Your task to perform on an android device: Open Reddit.com Image 0: 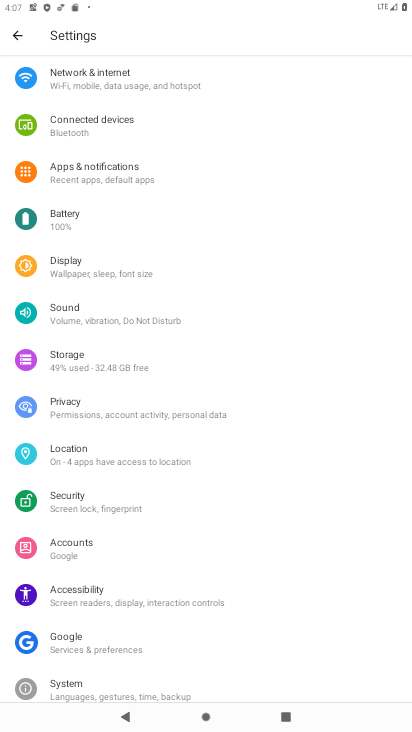
Step 0: press home button
Your task to perform on an android device: Open Reddit.com Image 1: 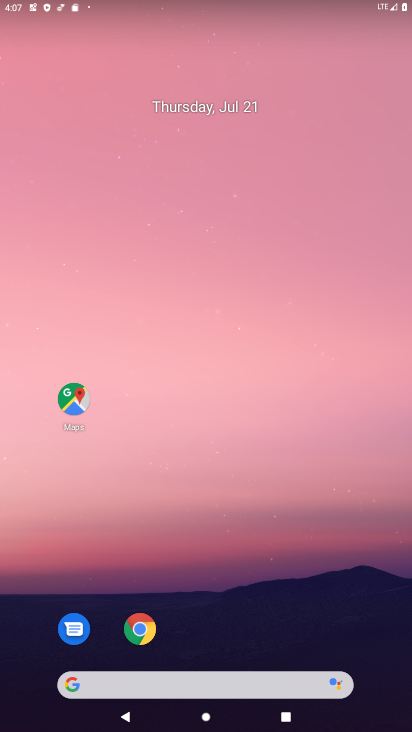
Step 1: drag from (316, 641) to (225, 229)
Your task to perform on an android device: Open Reddit.com Image 2: 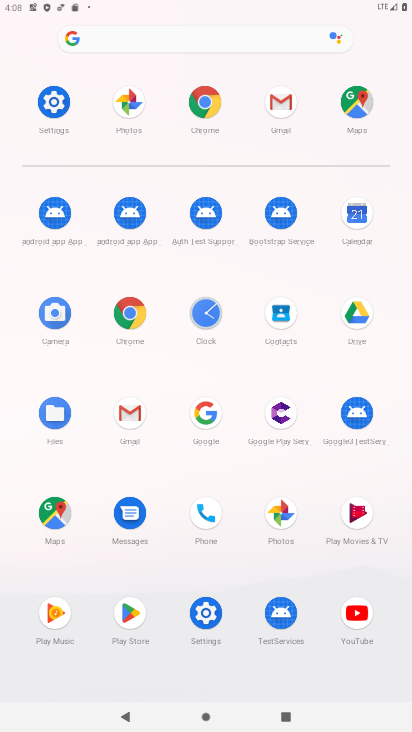
Step 2: click (214, 100)
Your task to perform on an android device: Open Reddit.com Image 3: 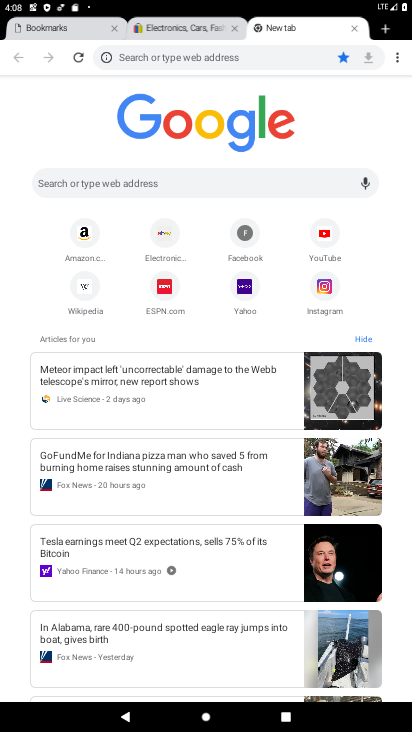
Step 3: click (197, 176)
Your task to perform on an android device: Open Reddit.com Image 4: 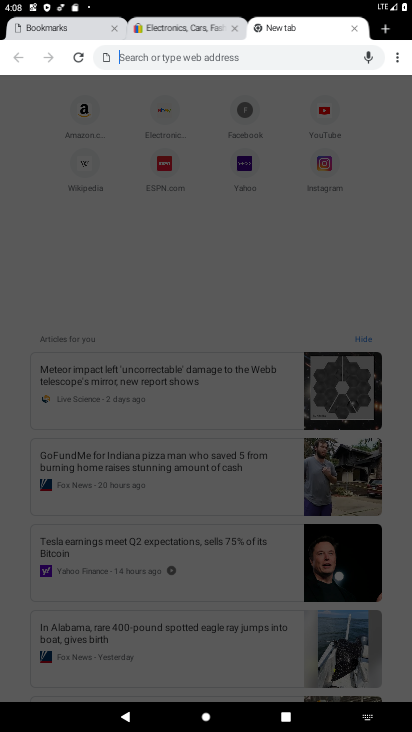
Step 4: type "reddit.com"
Your task to perform on an android device: Open Reddit.com Image 5: 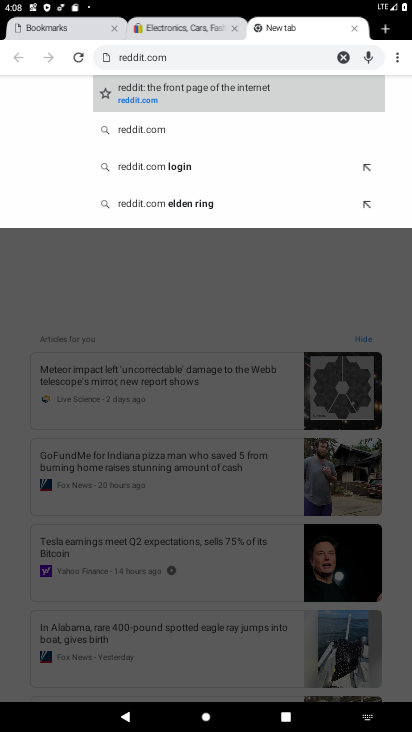
Step 5: click (138, 87)
Your task to perform on an android device: Open Reddit.com Image 6: 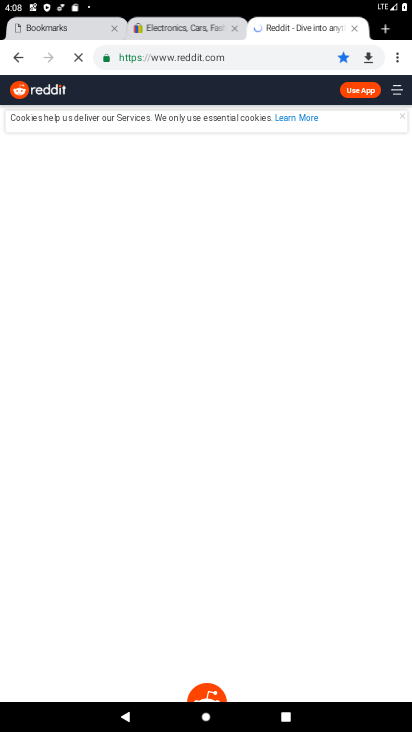
Step 6: task complete